Your task to perform on an android device: change the clock display to analog Image 0: 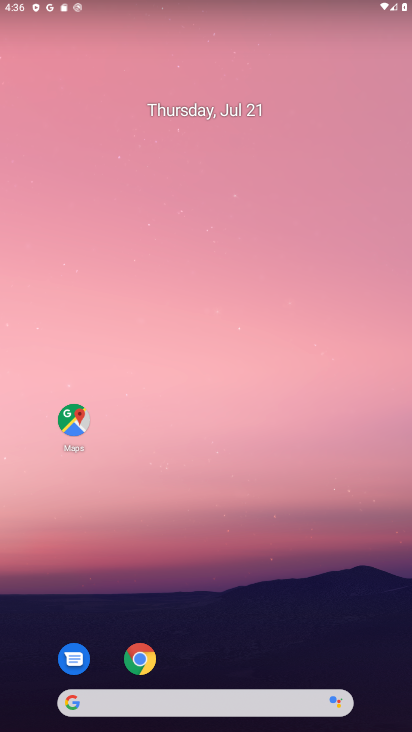
Step 0: drag from (236, 553) to (166, 168)
Your task to perform on an android device: change the clock display to analog Image 1: 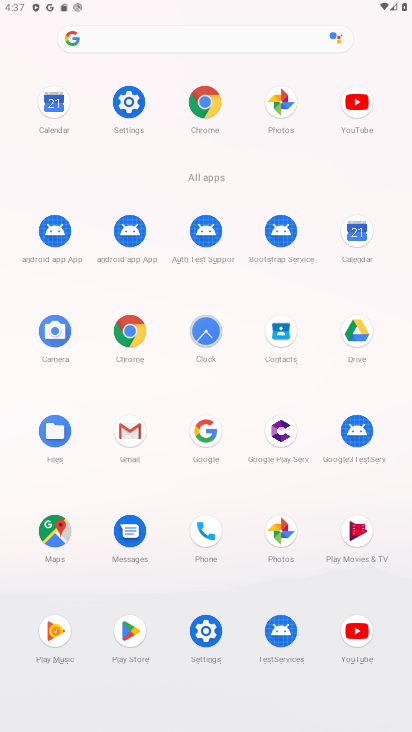
Step 1: click (207, 331)
Your task to perform on an android device: change the clock display to analog Image 2: 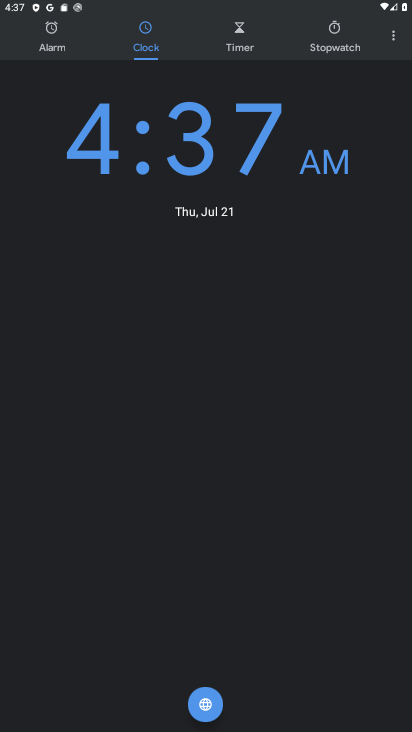
Step 2: click (394, 31)
Your task to perform on an android device: change the clock display to analog Image 3: 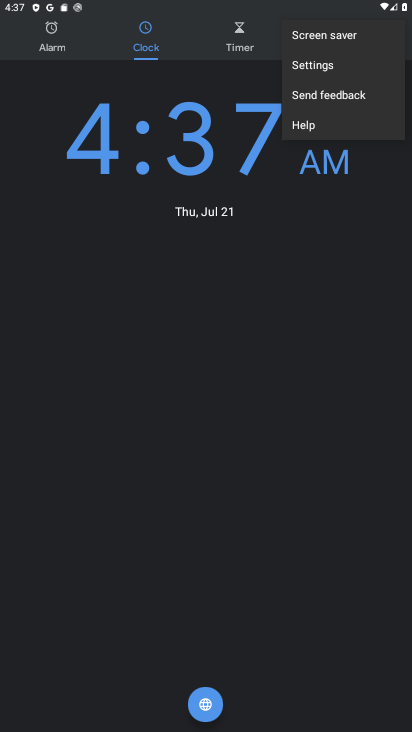
Step 3: click (309, 65)
Your task to perform on an android device: change the clock display to analog Image 4: 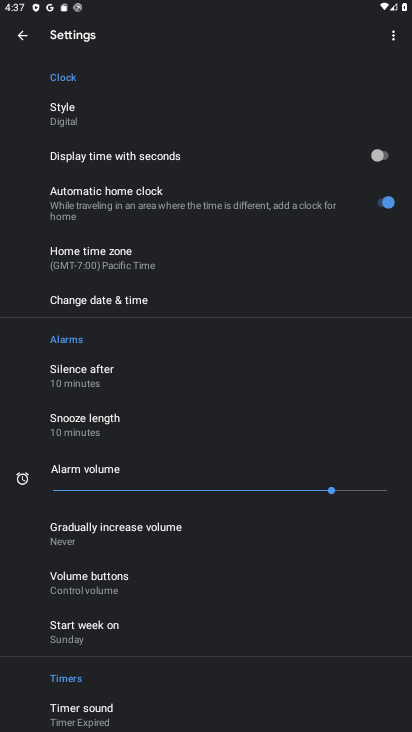
Step 4: click (68, 111)
Your task to perform on an android device: change the clock display to analog Image 5: 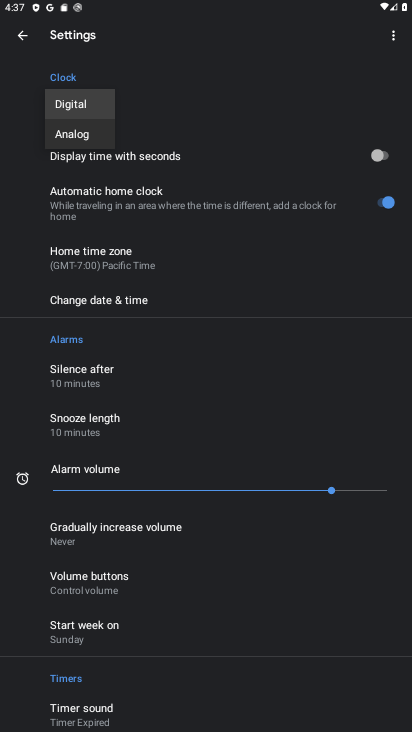
Step 5: click (79, 132)
Your task to perform on an android device: change the clock display to analog Image 6: 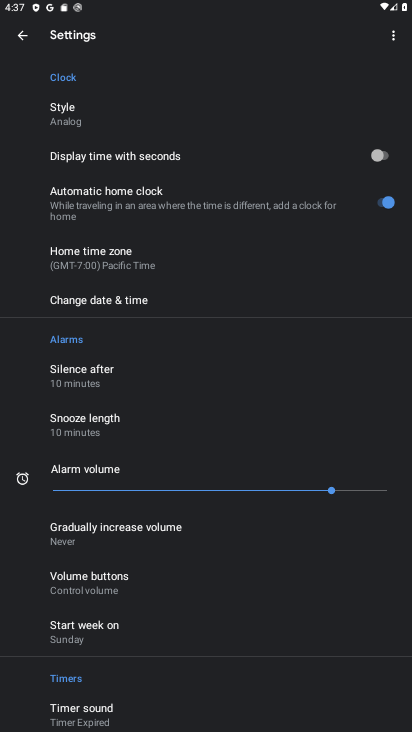
Step 6: task complete